Your task to perform on an android device: delete browsing data in the chrome app Image 0: 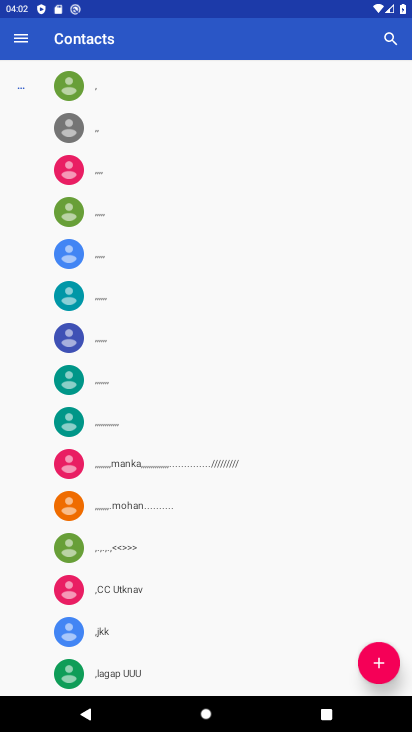
Step 0: press back button
Your task to perform on an android device: delete browsing data in the chrome app Image 1: 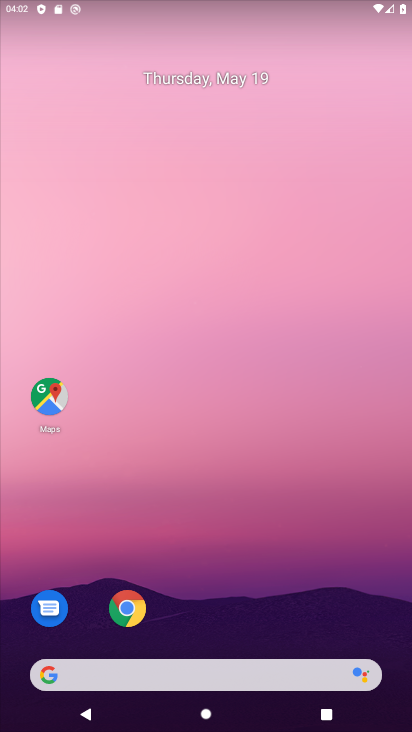
Step 1: click (126, 610)
Your task to perform on an android device: delete browsing data in the chrome app Image 2: 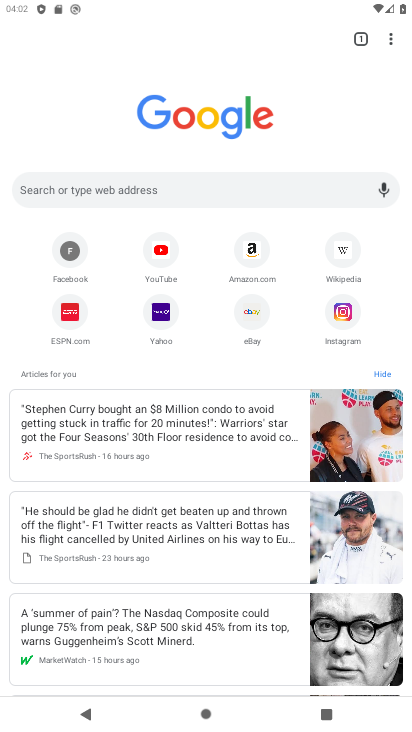
Step 2: click (390, 37)
Your task to perform on an android device: delete browsing data in the chrome app Image 3: 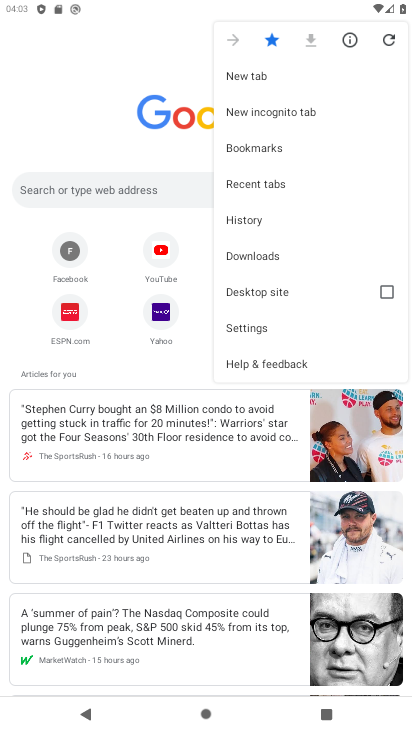
Step 3: click (247, 326)
Your task to perform on an android device: delete browsing data in the chrome app Image 4: 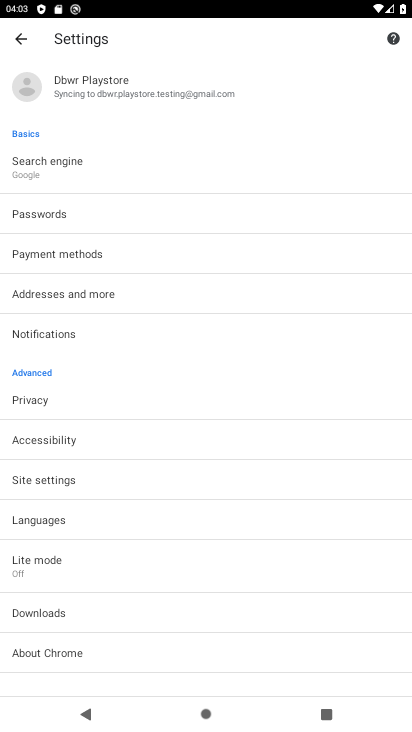
Step 4: click (35, 400)
Your task to perform on an android device: delete browsing data in the chrome app Image 5: 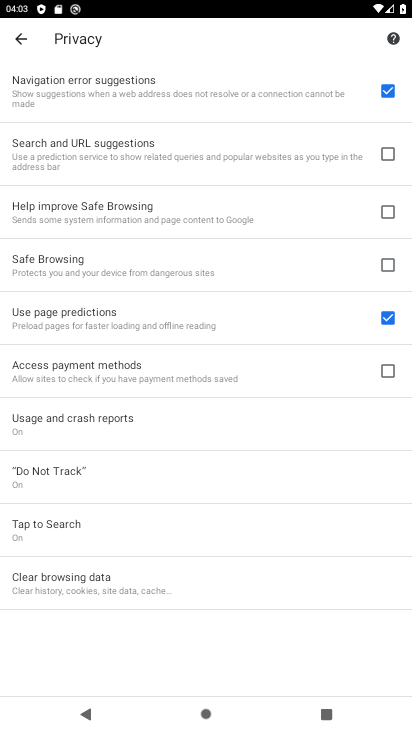
Step 5: click (78, 580)
Your task to perform on an android device: delete browsing data in the chrome app Image 6: 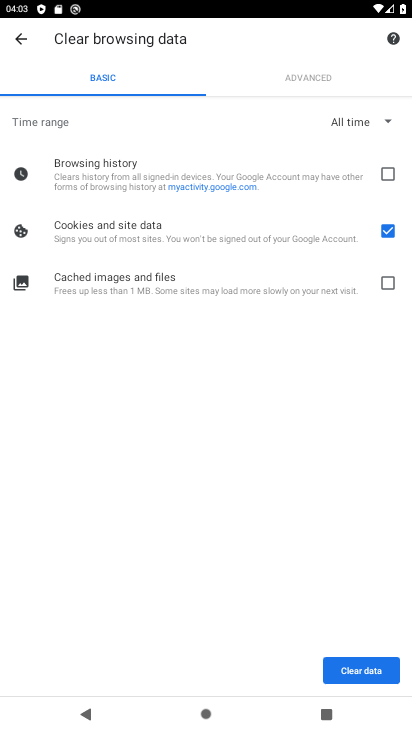
Step 6: click (391, 175)
Your task to perform on an android device: delete browsing data in the chrome app Image 7: 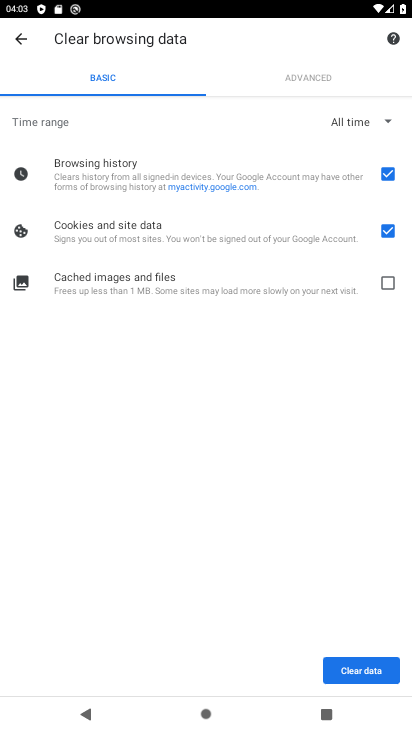
Step 7: click (395, 265)
Your task to perform on an android device: delete browsing data in the chrome app Image 8: 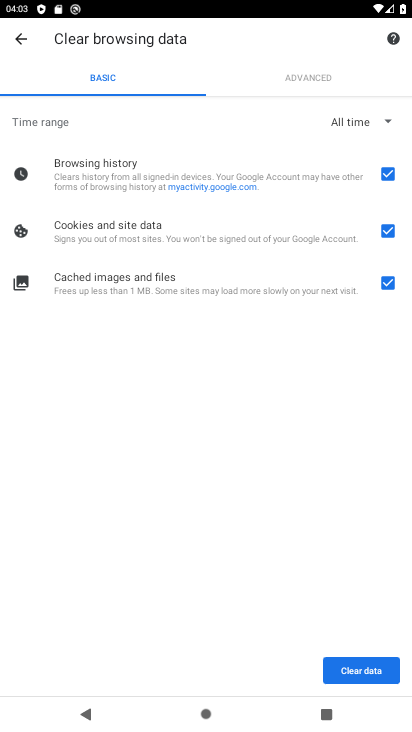
Step 8: click (348, 671)
Your task to perform on an android device: delete browsing data in the chrome app Image 9: 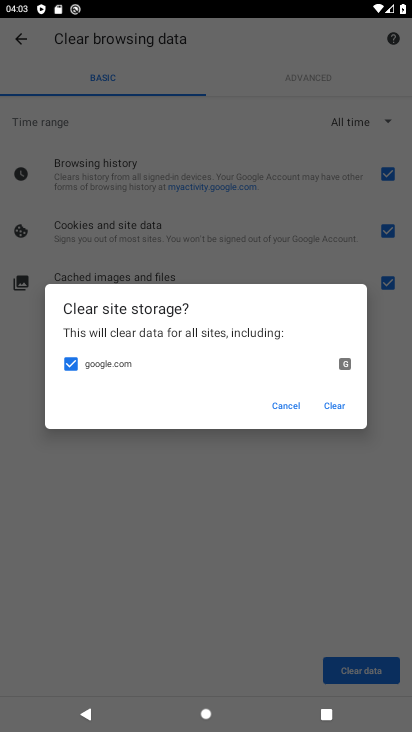
Step 9: click (343, 411)
Your task to perform on an android device: delete browsing data in the chrome app Image 10: 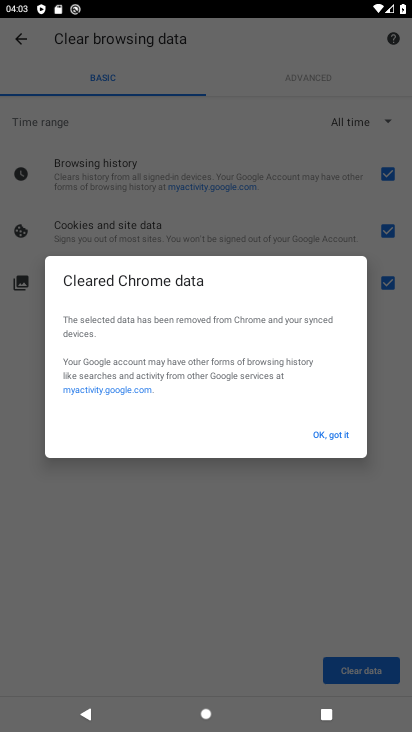
Step 10: click (325, 431)
Your task to perform on an android device: delete browsing data in the chrome app Image 11: 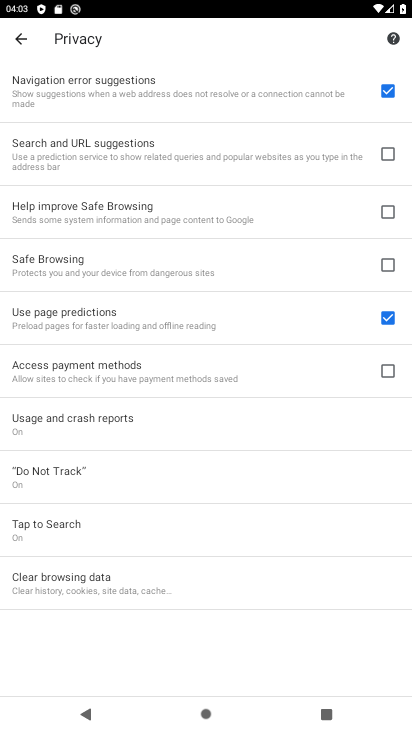
Step 11: task complete